Your task to perform on an android device: find which apps use the phone's location Image 0: 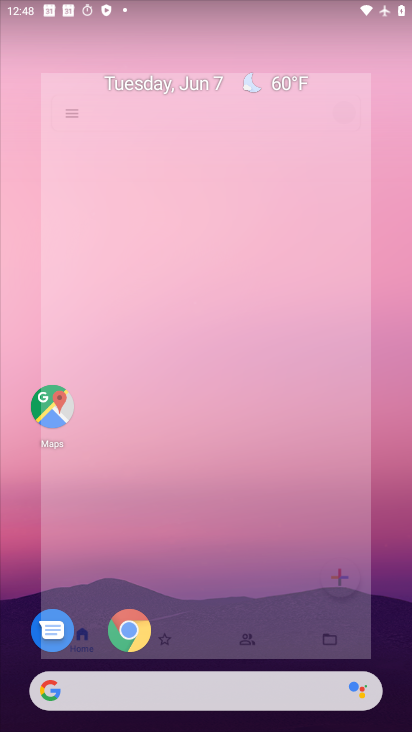
Step 0: drag from (317, 618) to (322, 144)
Your task to perform on an android device: find which apps use the phone's location Image 1: 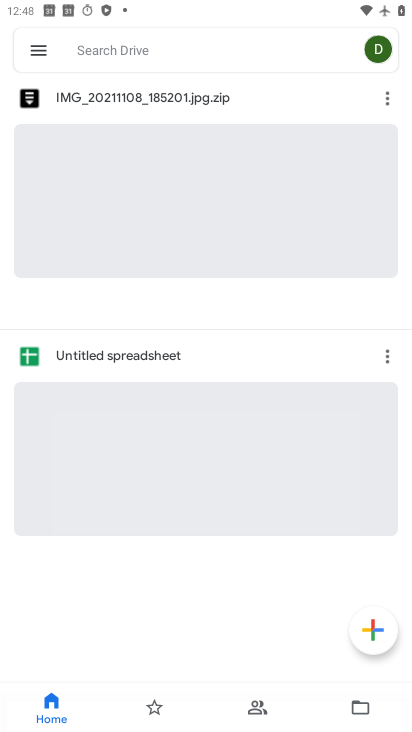
Step 1: press home button
Your task to perform on an android device: find which apps use the phone's location Image 2: 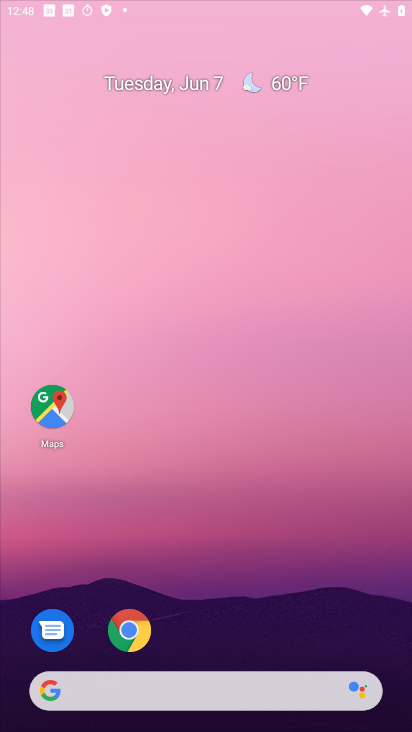
Step 2: drag from (296, 584) to (206, 41)
Your task to perform on an android device: find which apps use the phone's location Image 3: 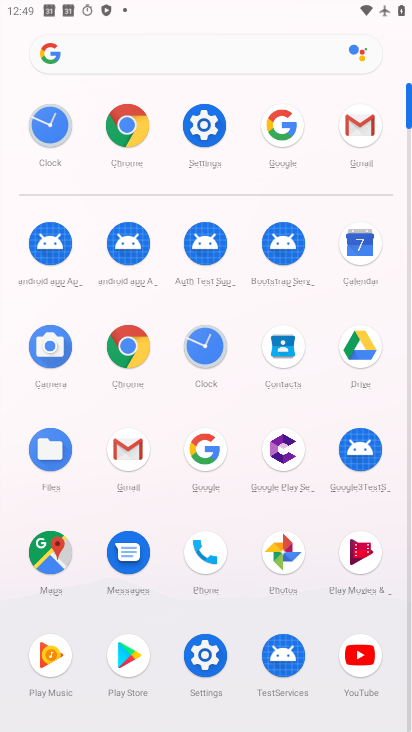
Step 3: click (210, 641)
Your task to perform on an android device: find which apps use the phone's location Image 4: 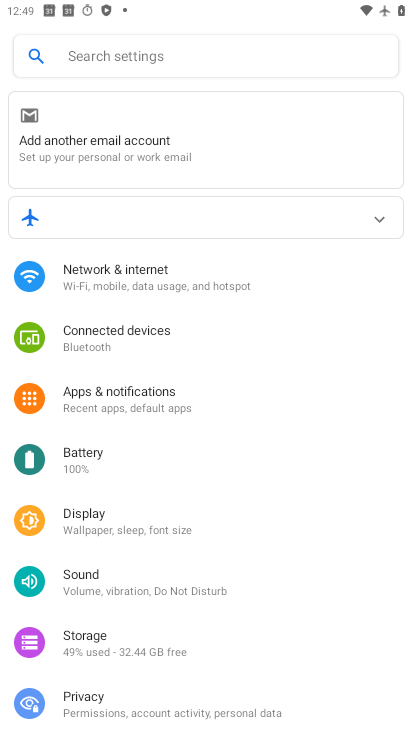
Step 4: drag from (98, 649) to (115, 262)
Your task to perform on an android device: find which apps use the phone's location Image 5: 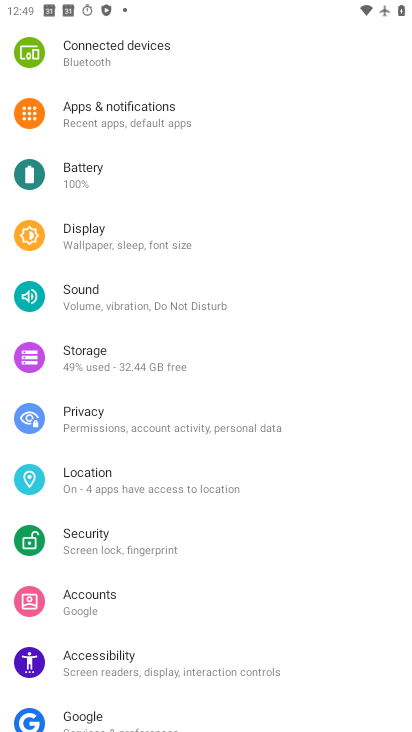
Step 5: click (104, 488)
Your task to perform on an android device: find which apps use the phone's location Image 6: 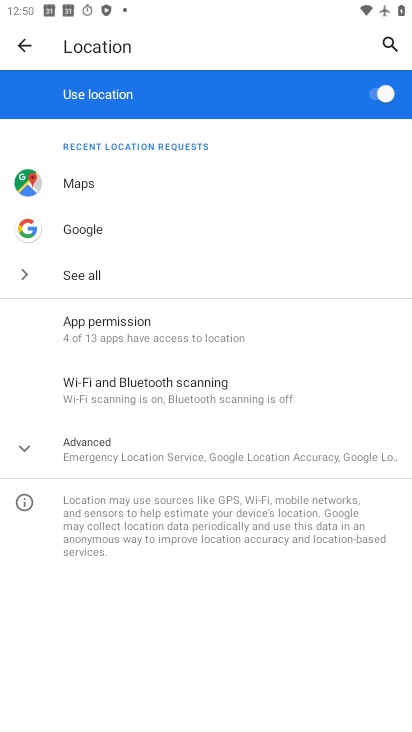
Step 6: click (143, 328)
Your task to perform on an android device: find which apps use the phone's location Image 7: 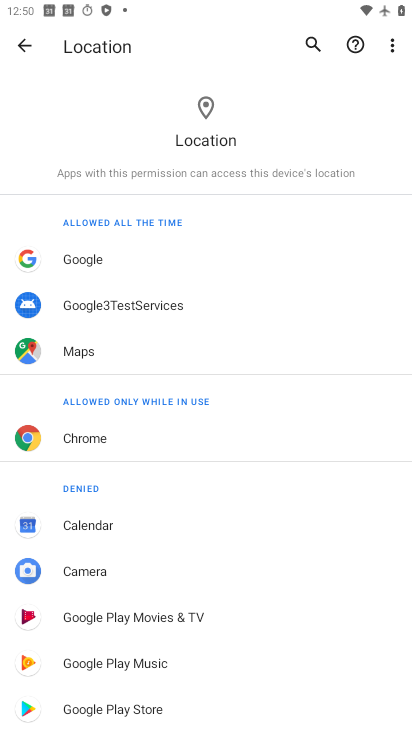
Step 7: drag from (122, 570) to (148, 208)
Your task to perform on an android device: find which apps use the phone's location Image 8: 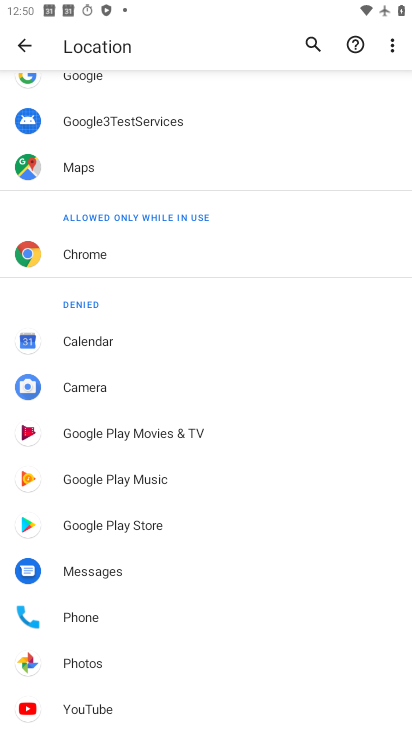
Step 8: click (92, 605)
Your task to perform on an android device: find which apps use the phone's location Image 9: 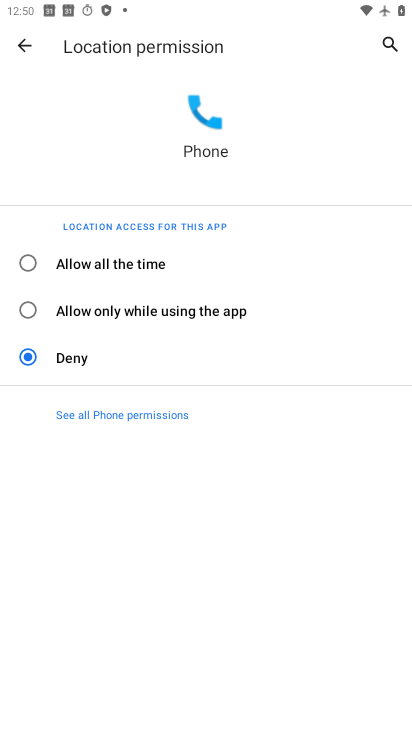
Step 9: click (39, 264)
Your task to perform on an android device: find which apps use the phone's location Image 10: 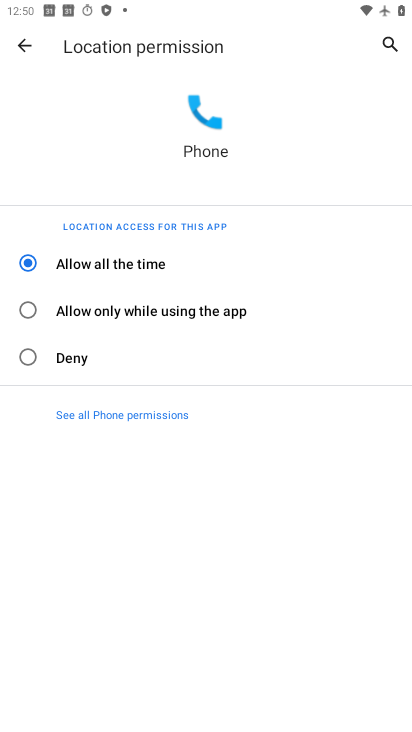
Step 10: task complete